Your task to perform on an android device: change the clock display to analog Image 0: 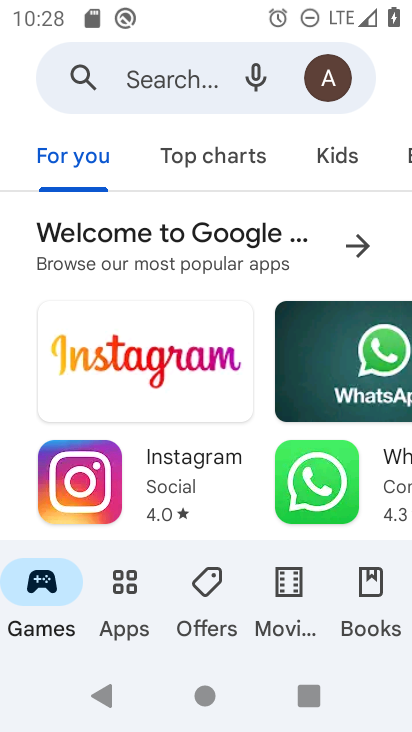
Step 0: press home button
Your task to perform on an android device: change the clock display to analog Image 1: 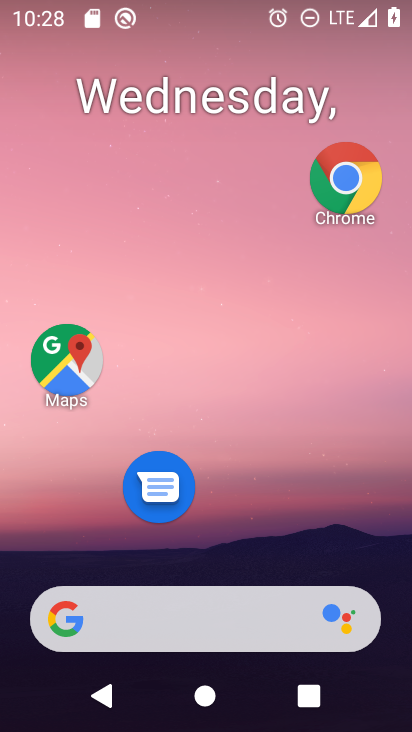
Step 1: drag from (223, 665) to (202, 223)
Your task to perform on an android device: change the clock display to analog Image 2: 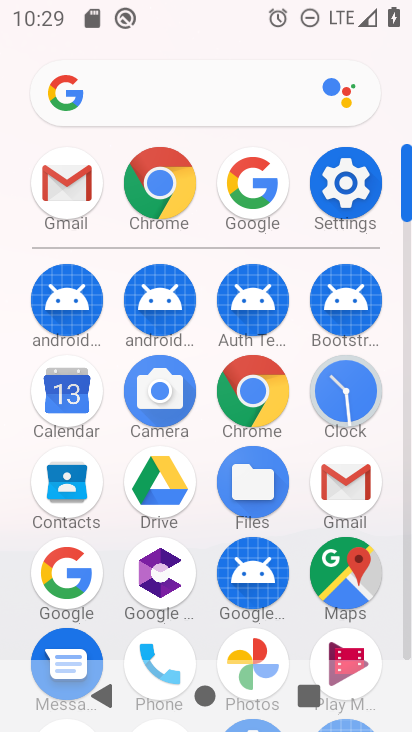
Step 2: click (337, 409)
Your task to perform on an android device: change the clock display to analog Image 3: 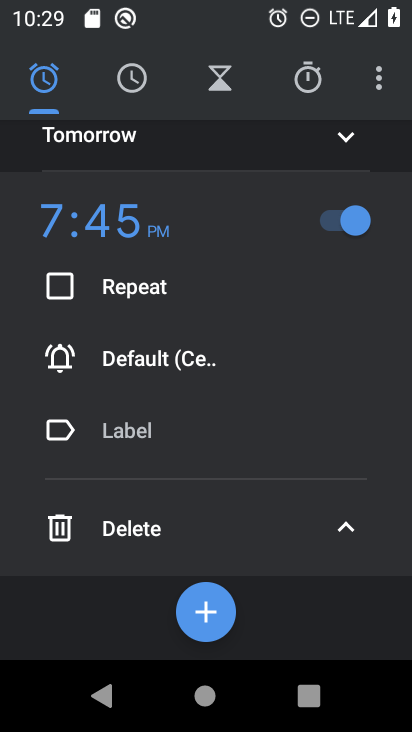
Step 3: click (374, 87)
Your task to perform on an android device: change the clock display to analog Image 4: 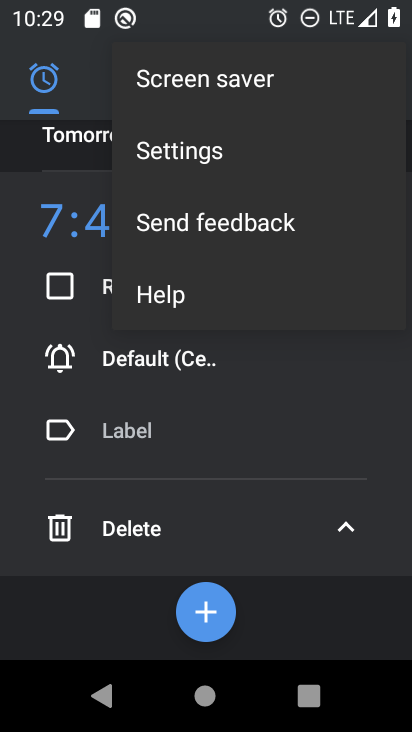
Step 4: click (199, 152)
Your task to perform on an android device: change the clock display to analog Image 5: 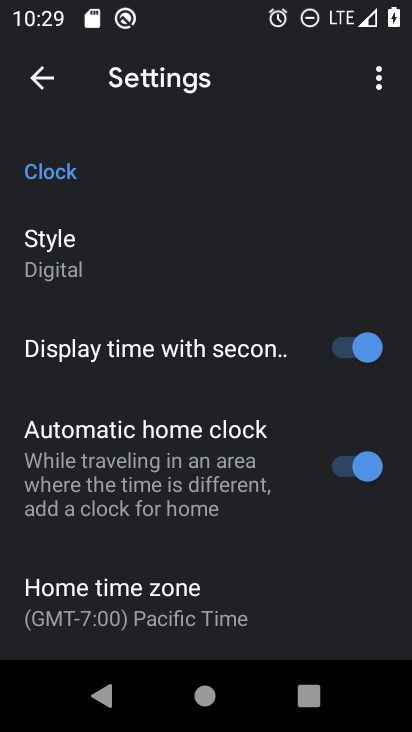
Step 5: click (98, 259)
Your task to perform on an android device: change the clock display to analog Image 6: 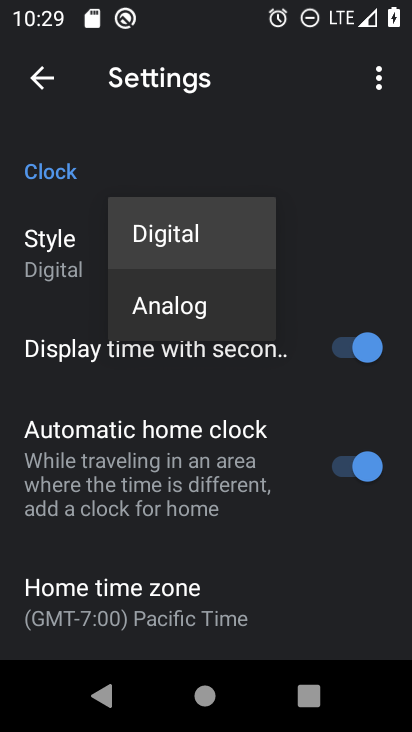
Step 6: click (172, 314)
Your task to perform on an android device: change the clock display to analog Image 7: 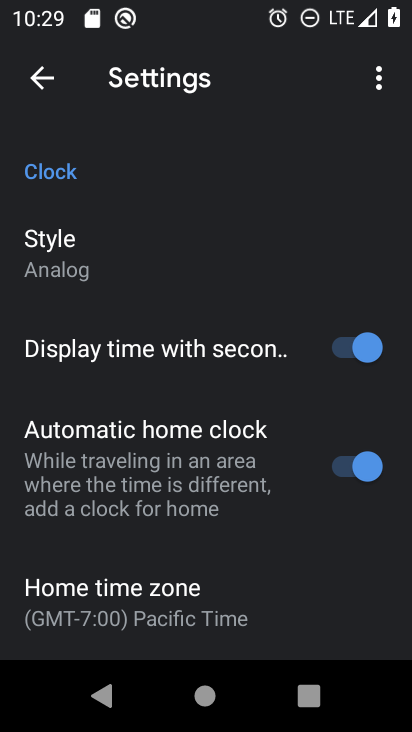
Step 7: task complete